Your task to perform on an android device: View the shopping cart on bestbuy. Image 0: 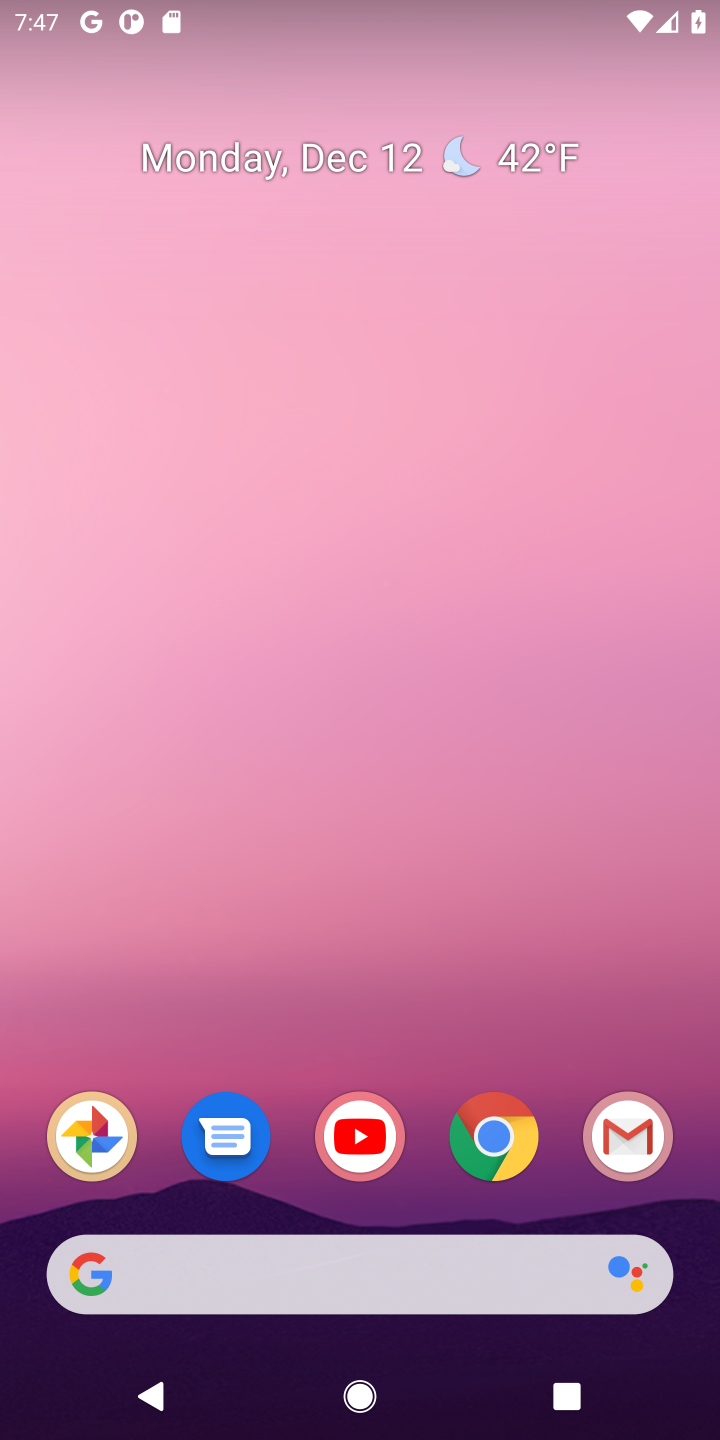
Step 0: click (505, 1140)
Your task to perform on an android device: View the shopping cart on bestbuy. Image 1: 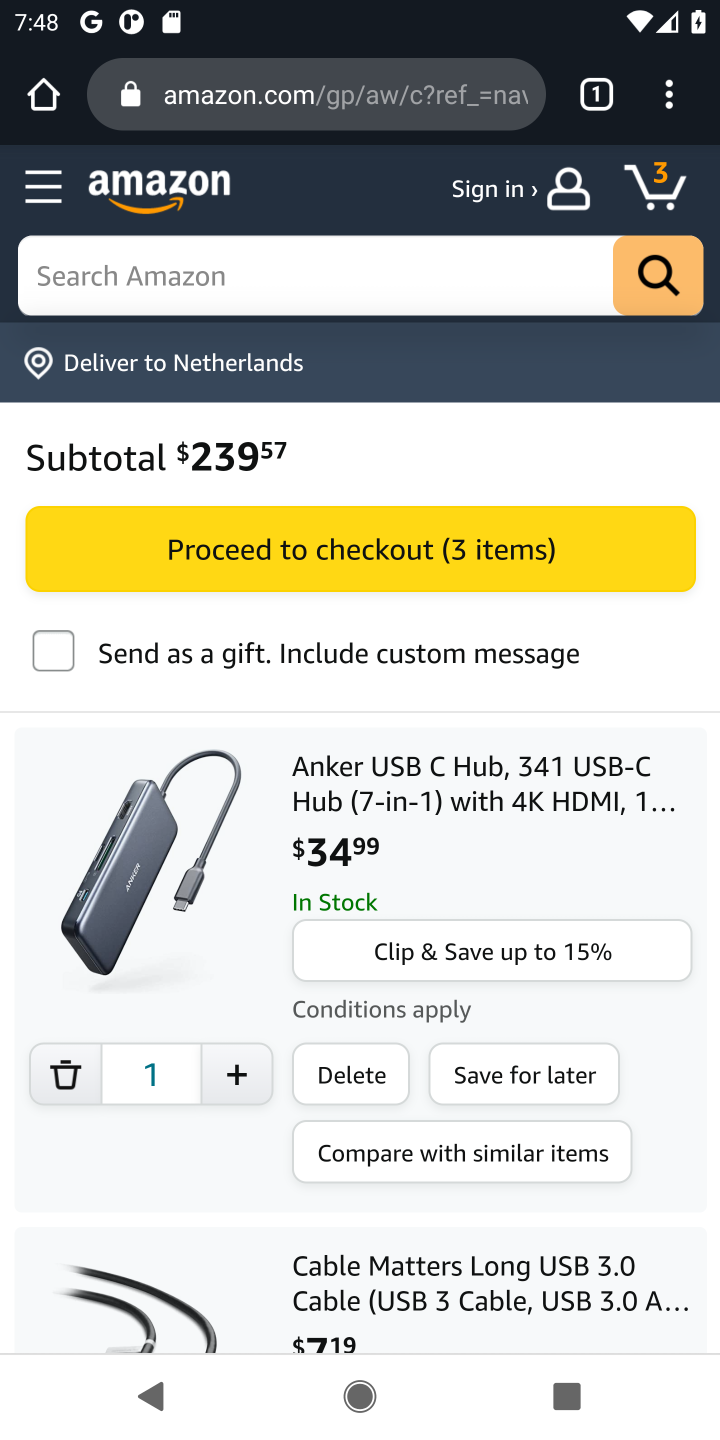
Step 1: click (305, 105)
Your task to perform on an android device: View the shopping cart on bestbuy. Image 2: 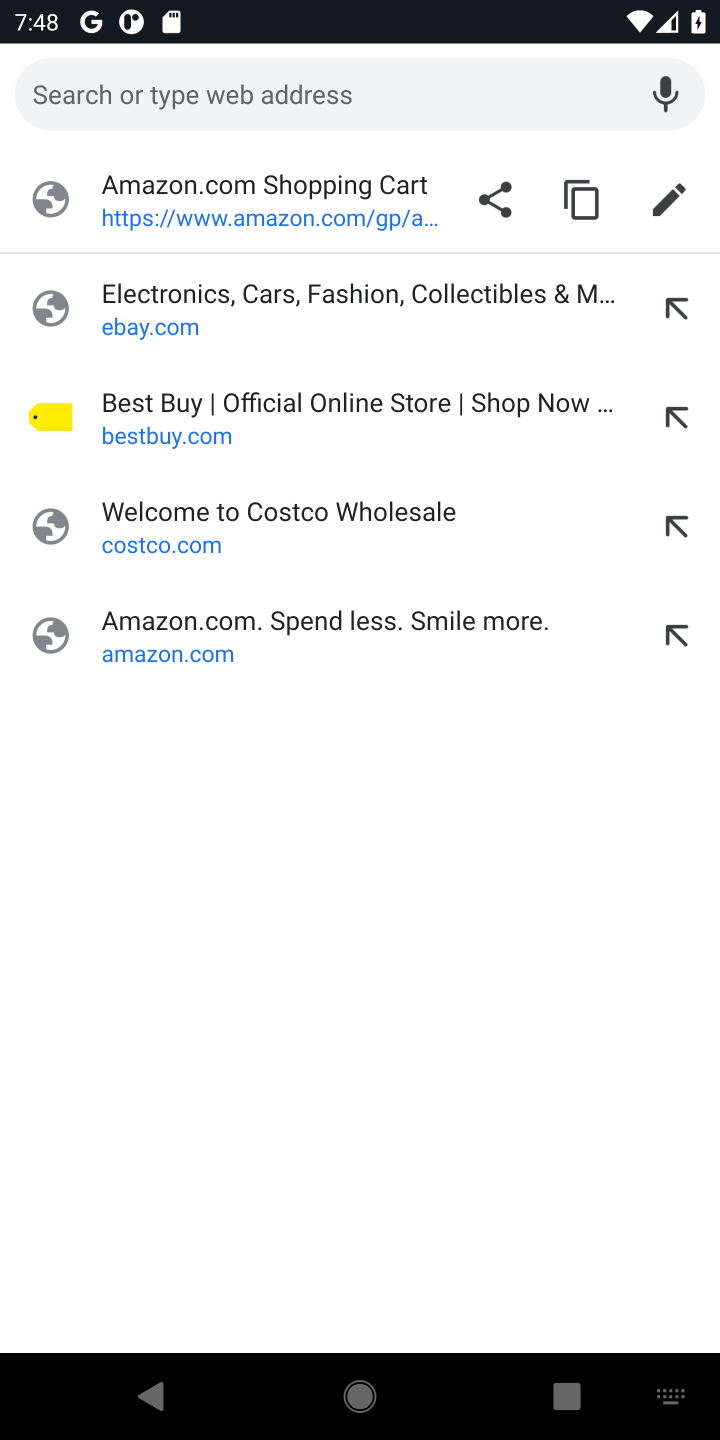
Step 2: click (157, 429)
Your task to perform on an android device: View the shopping cart on bestbuy. Image 3: 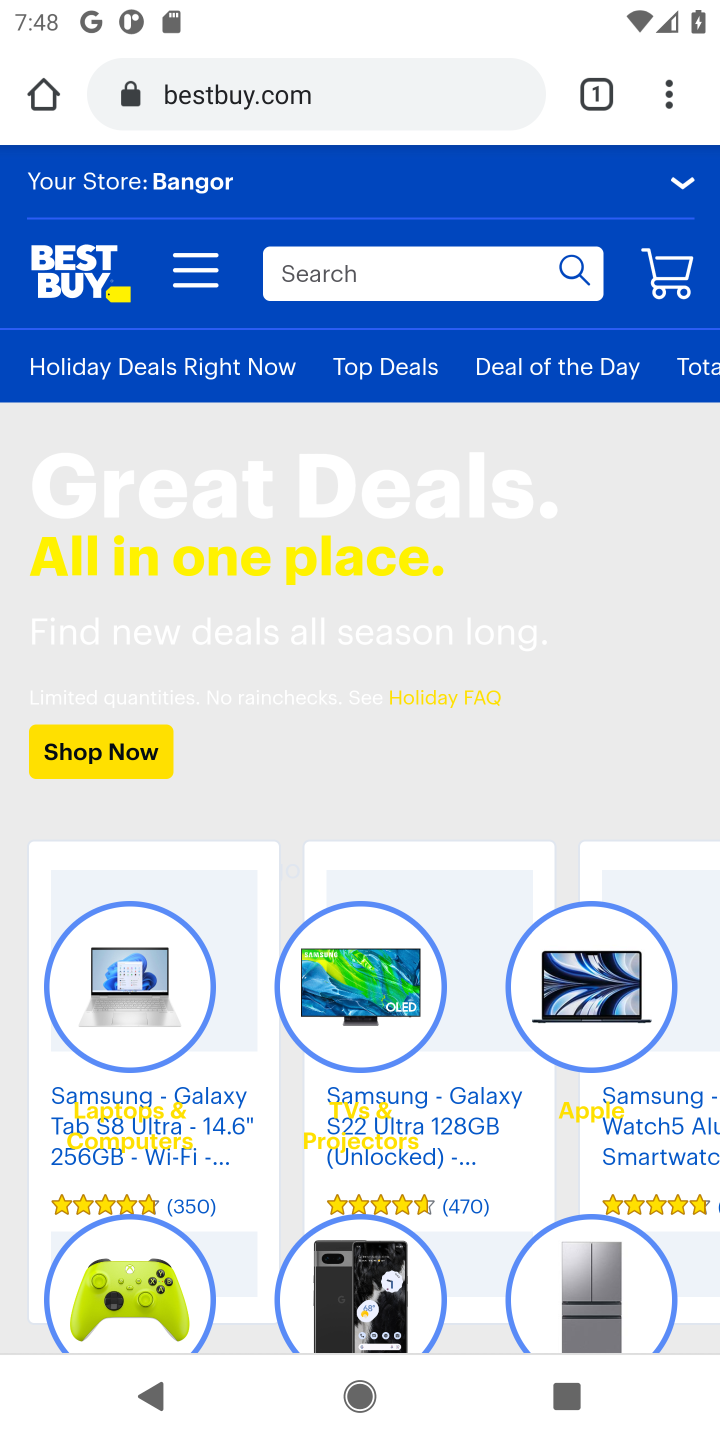
Step 3: click (667, 280)
Your task to perform on an android device: View the shopping cart on bestbuy. Image 4: 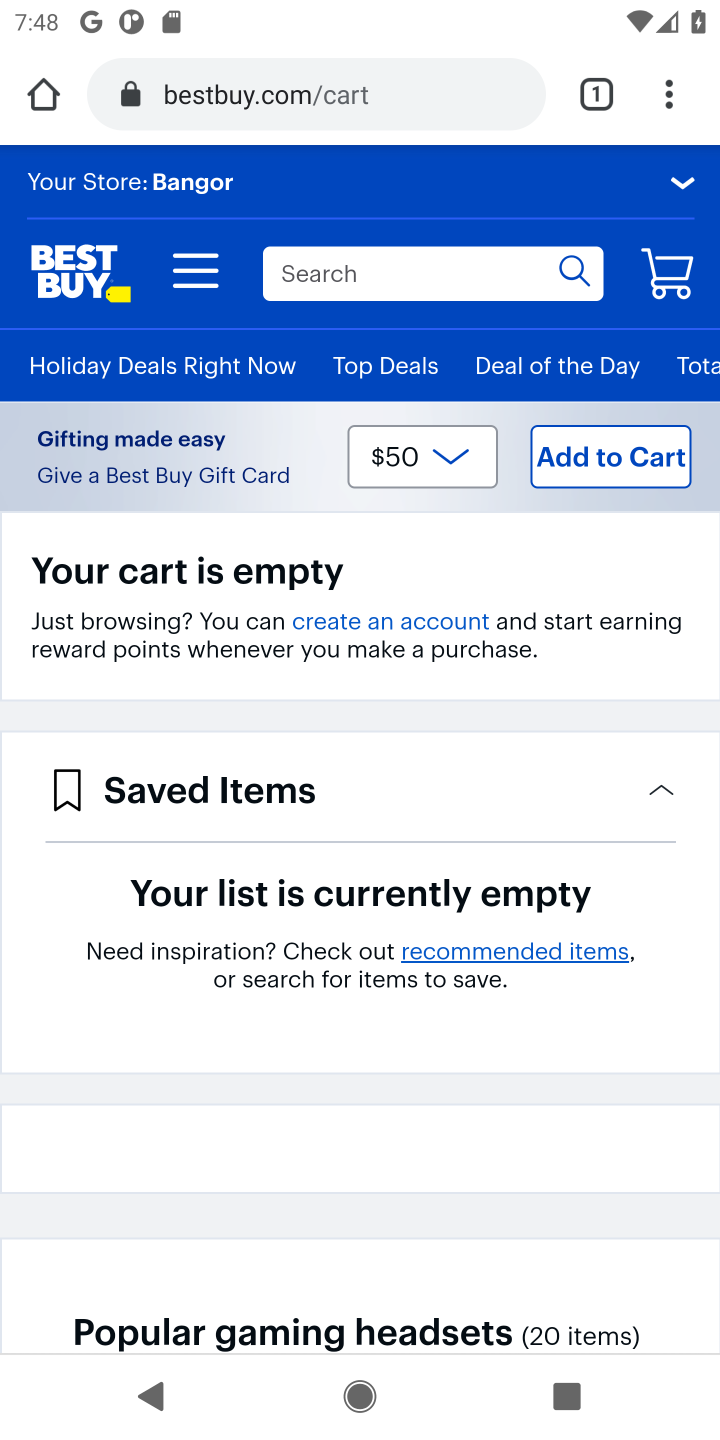
Step 4: task complete